Your task to perform on an android device: Open Reddit.com Image 0: 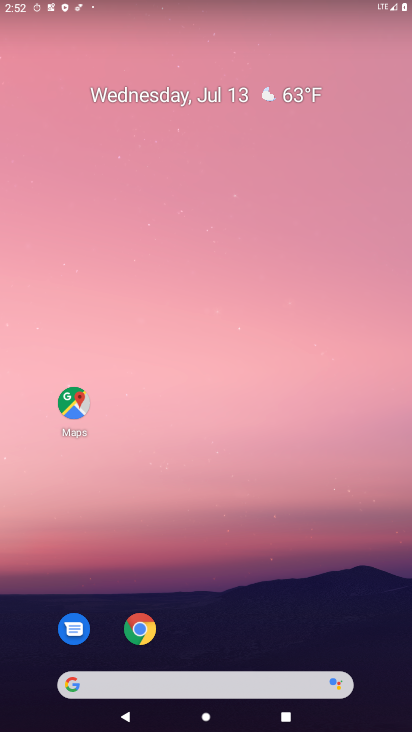
Step 0: drag from (207, 497) to (304, 101)
Your task to perform on an android device: Open Reddit.com Image 1: 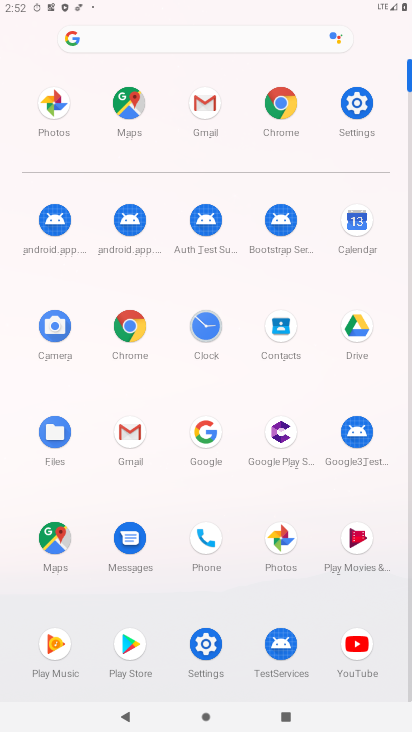
Step 1: click (278, 102)
Your task to perform on an android device: Open Reddit.com Image 2: 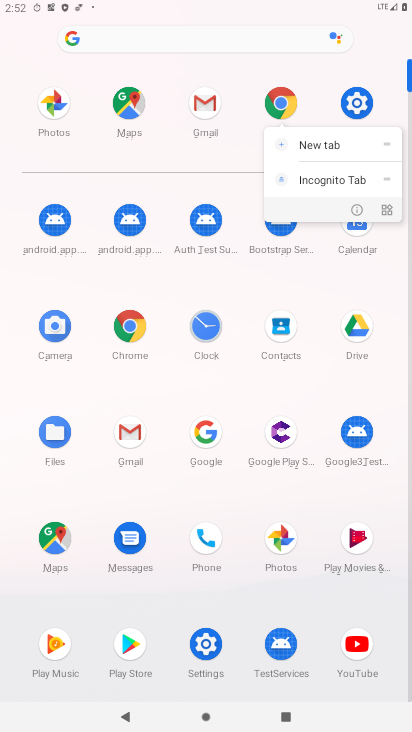
Step 2: click (352, 206)
Your task to perform on an android device: Open Reddit.com Image 3: 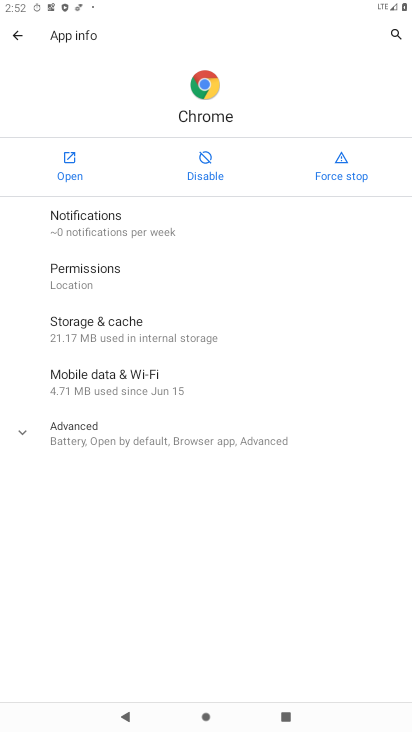
Step 3: click (77, 168)
Your task to perform on an android device: Open Reddit.com Image 4: 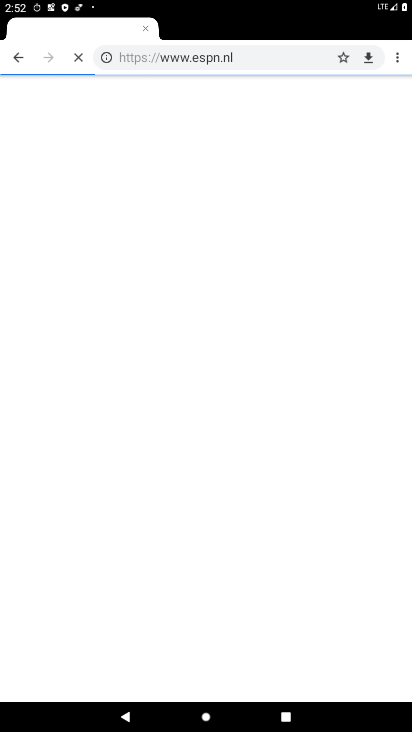
Step 4: drag from (177, 62) to (302, 562)
Your task to perform on an android device: Open Reddit.com Image 5: 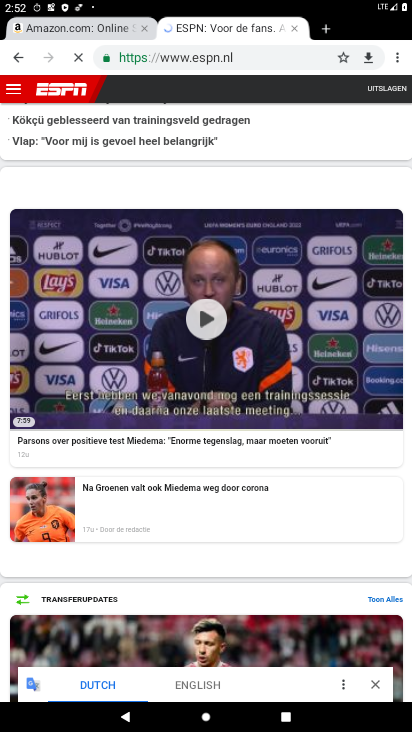
Step 5: click (322, 30)
Your task to perform on an android device: Open Reddit.com Image 6: 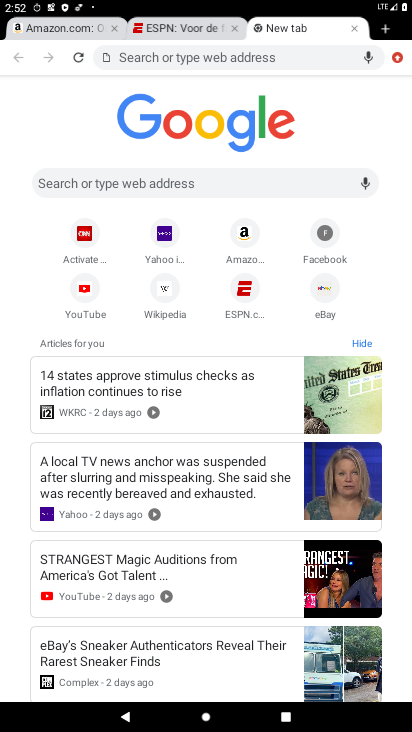
Step 6: click (148, 55)
Your task to perform on an android device: Open Reddit.com Image 7: 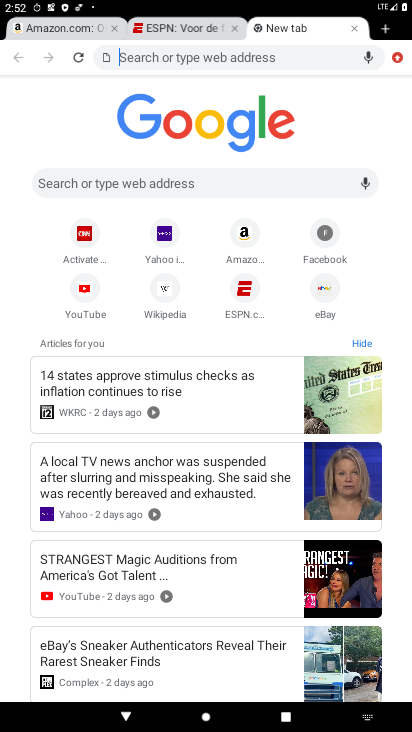
Step 7: type "reddit.com"
Your task to perform on an android device: Open Reddit.com Image 8: 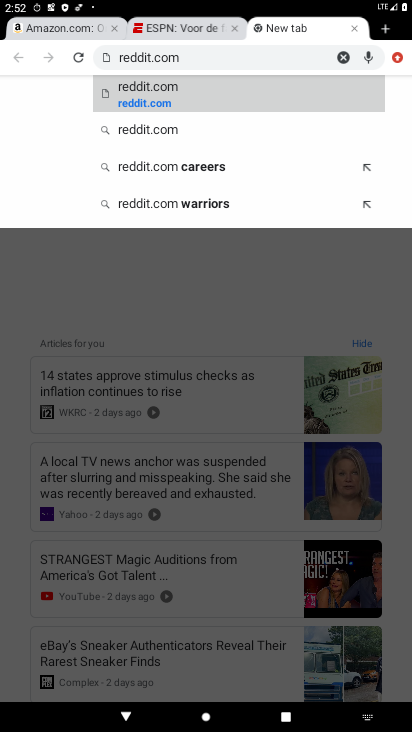
Step 8: click (148, 96)
Your task to perform on an android device: Open Reddit.com Image 9: 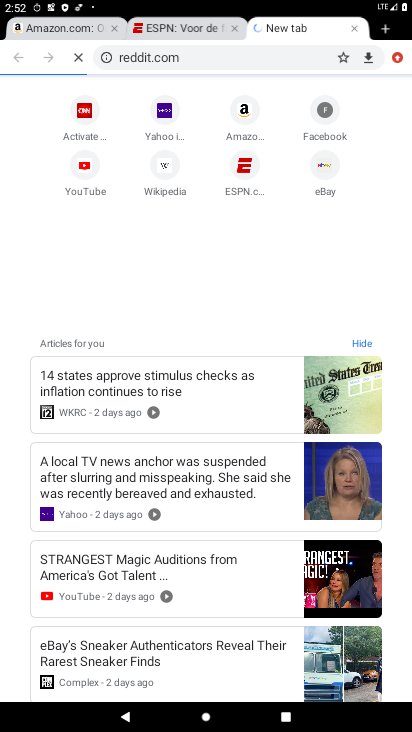
Step 9: task complete